Your task to perform on an android device: find snoozed emails in the gmail app Image 0: 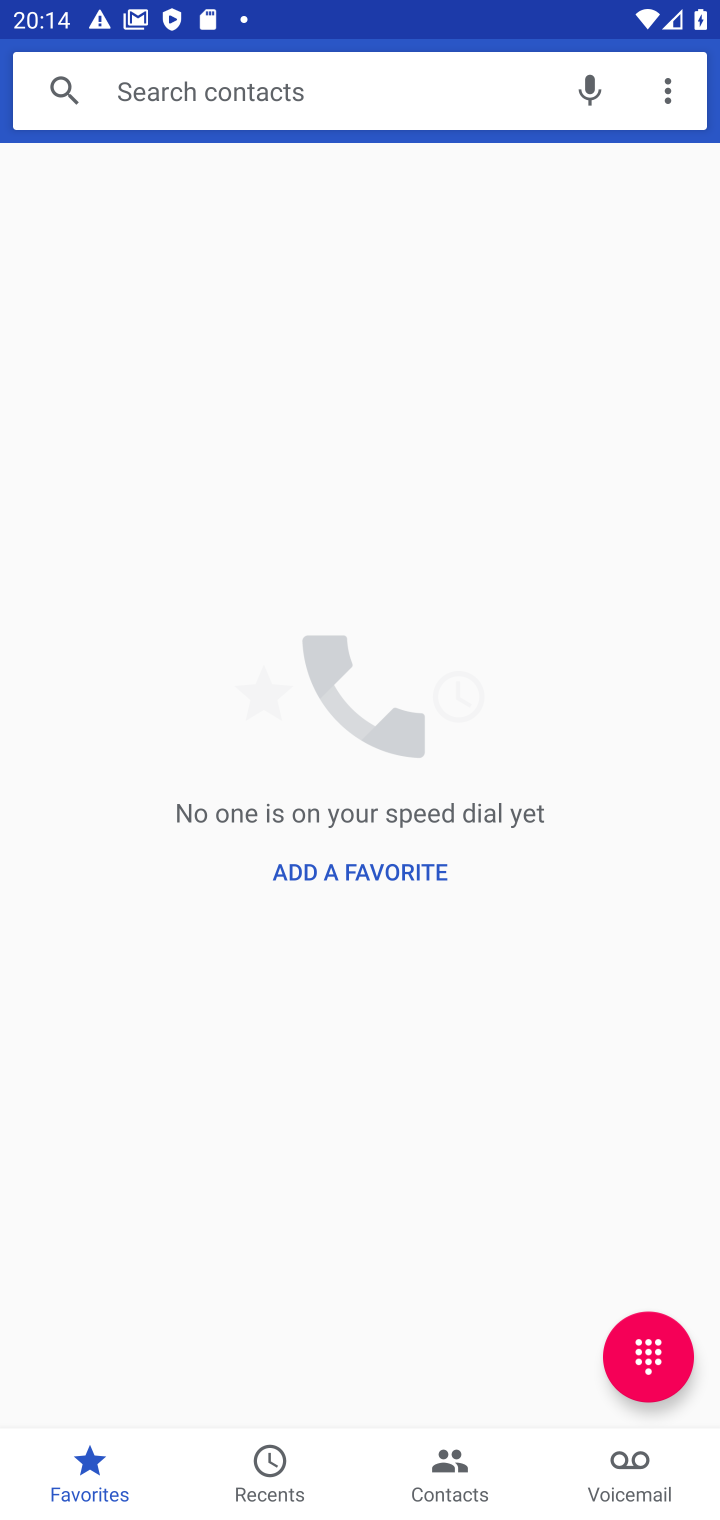
Step 0: press home button
Your task to perform on an android device: find snoozed emails in the gmail app Image 1: 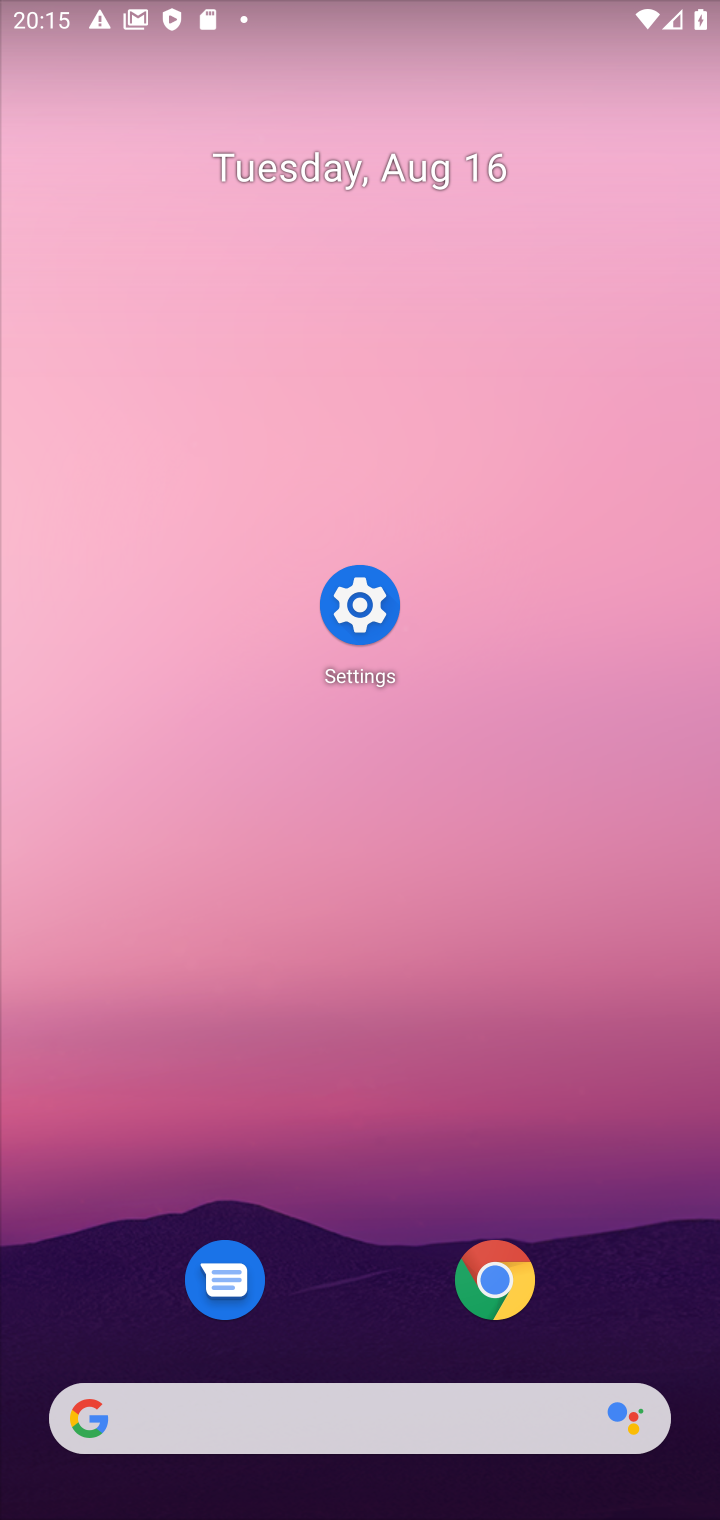
Step 1: drag from (340, 1317) to (390, 129)
Your task to perform on an android device: find snoozed emails in the gmail app Image 2: 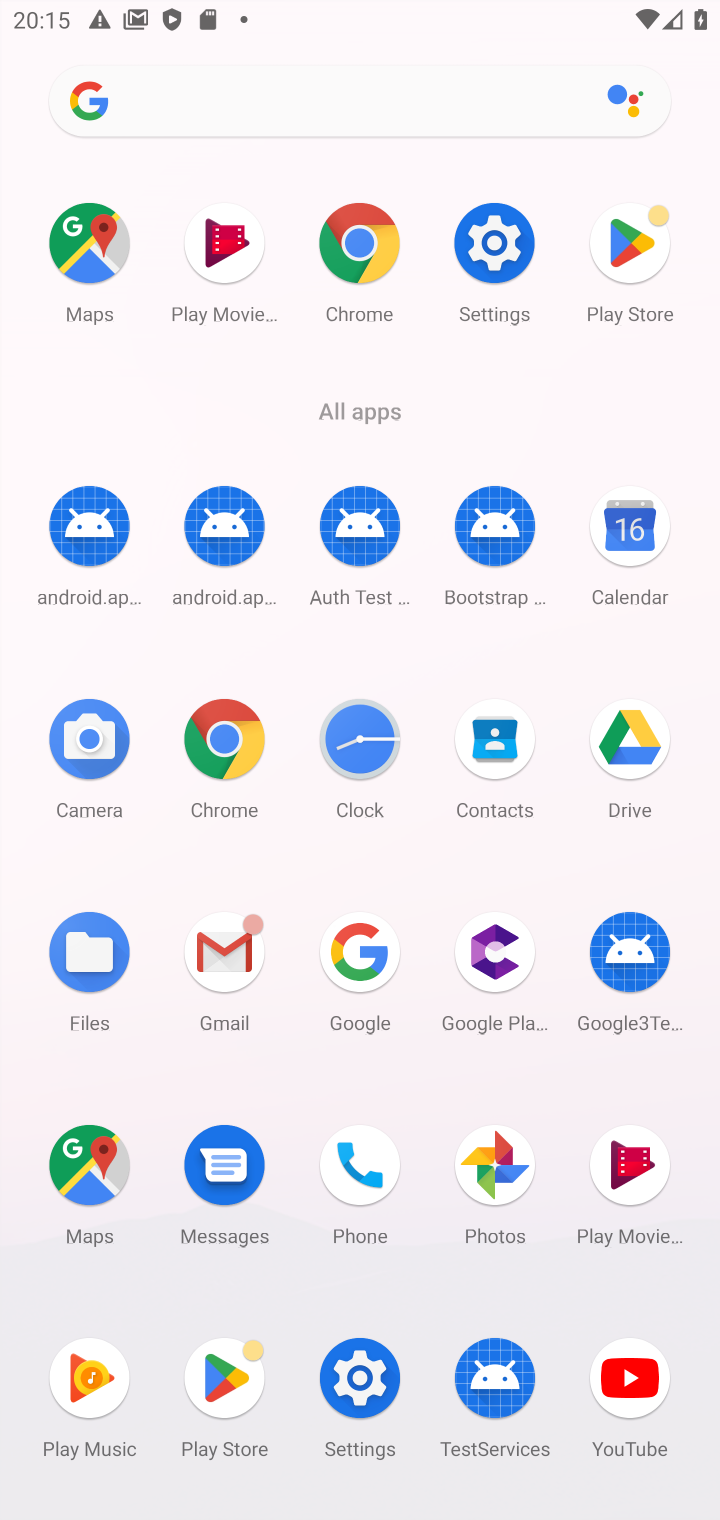
Step 2: click (219, 963)
Your task to perform on an android device: find snoozed emails in the gmail app Image 3: 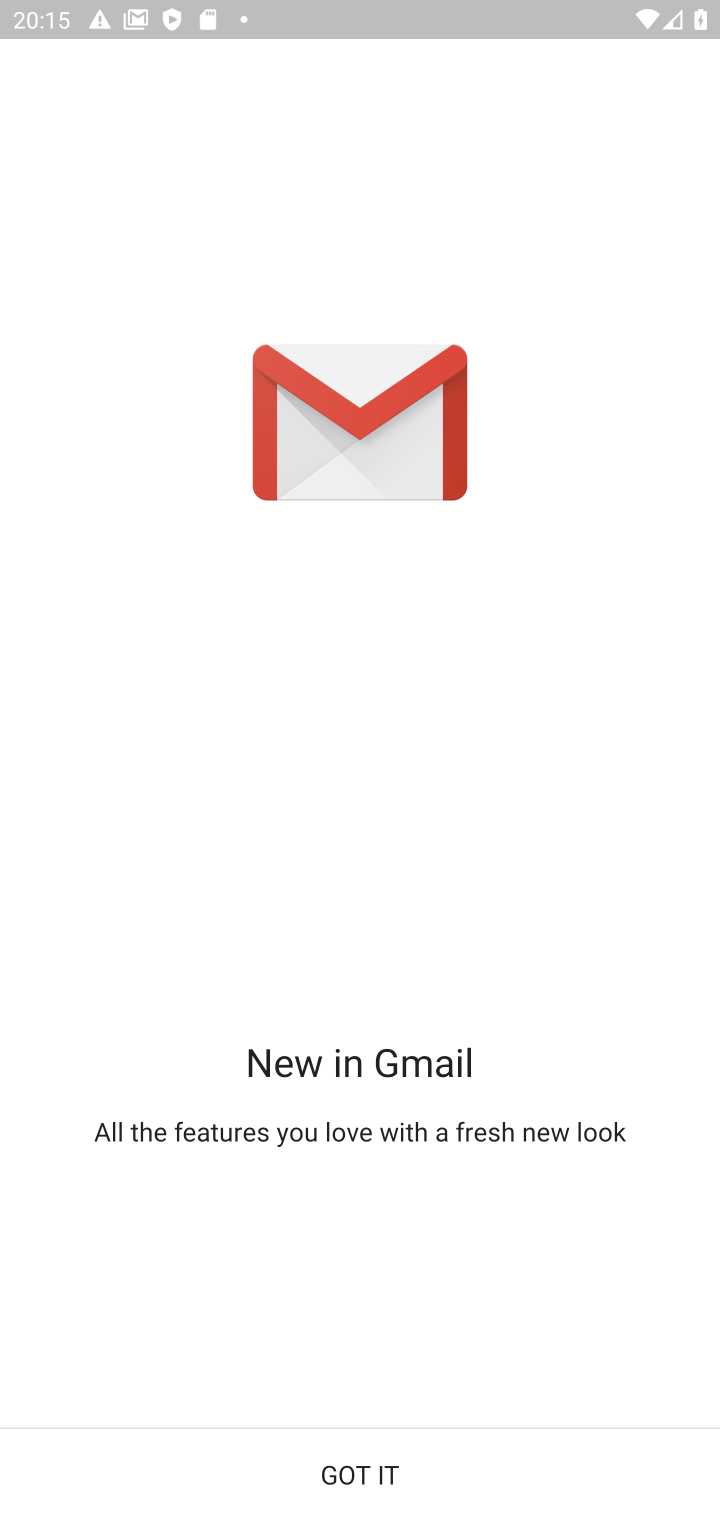
Step 3: click (379, 1478)
Your task to perform on an android device: find snoozed emails in the gmail app Image 4: 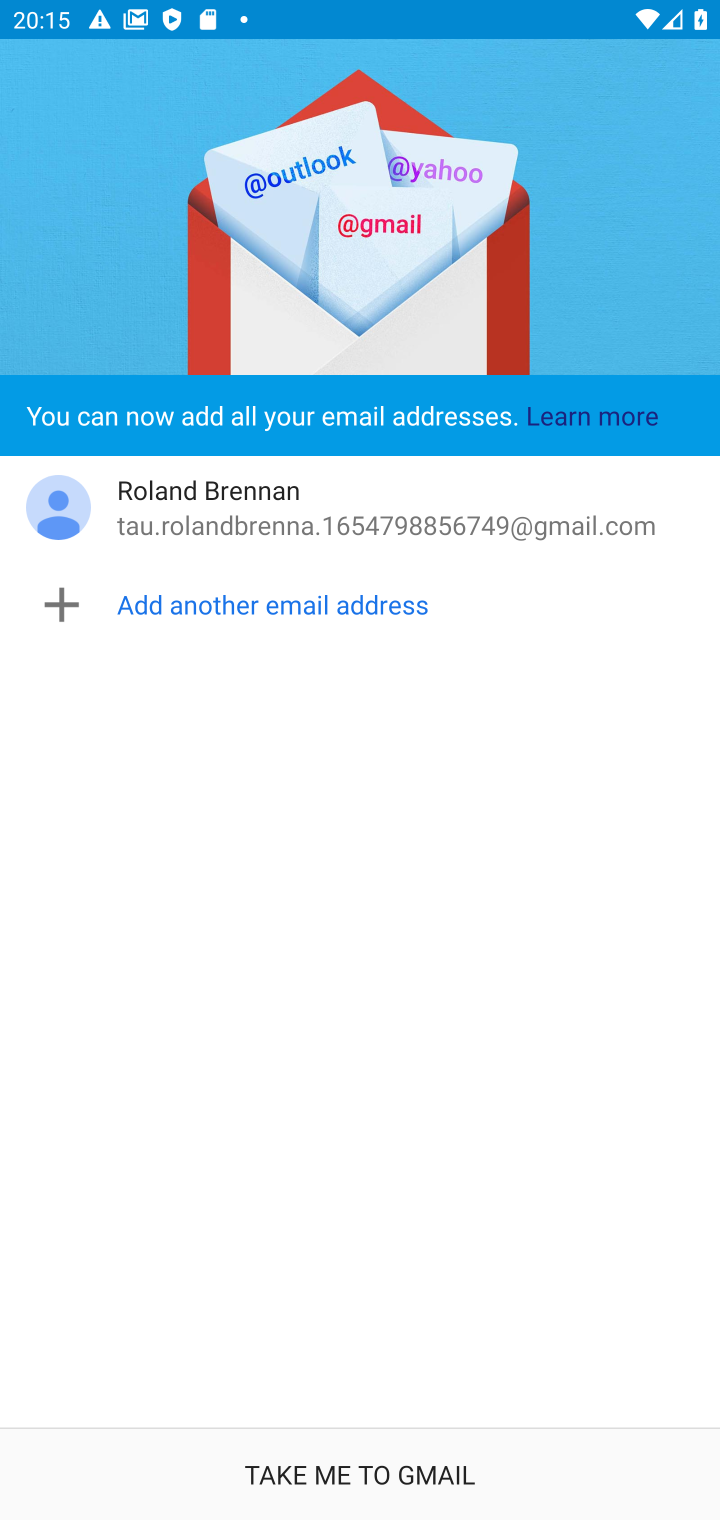
Step 4: click (379, 1476)
Your task to perform on an android device: find snoozed emails in the gmail app Image 5: 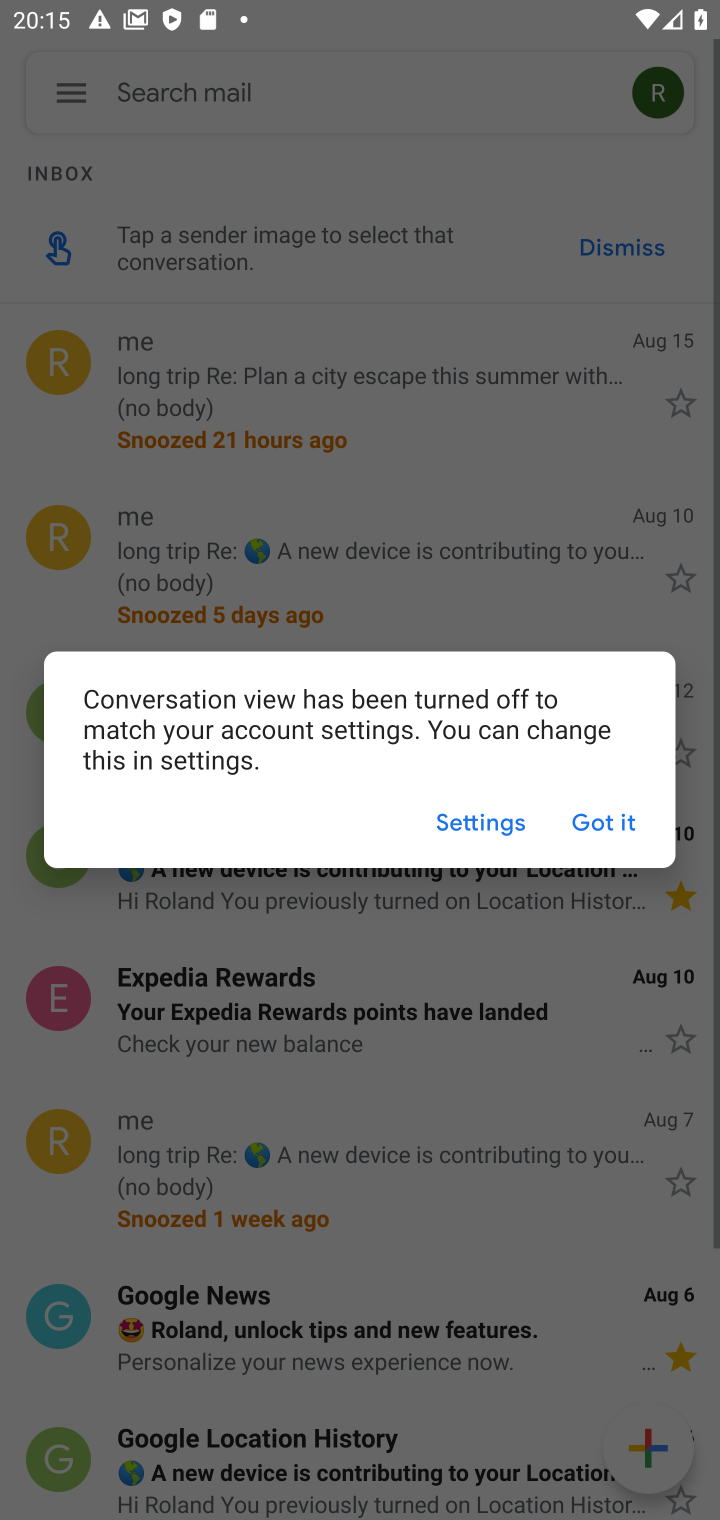
Step 5: click (617, 839)
Your task to perform on an android device: find snoozed emails in the gmail app Image 6: 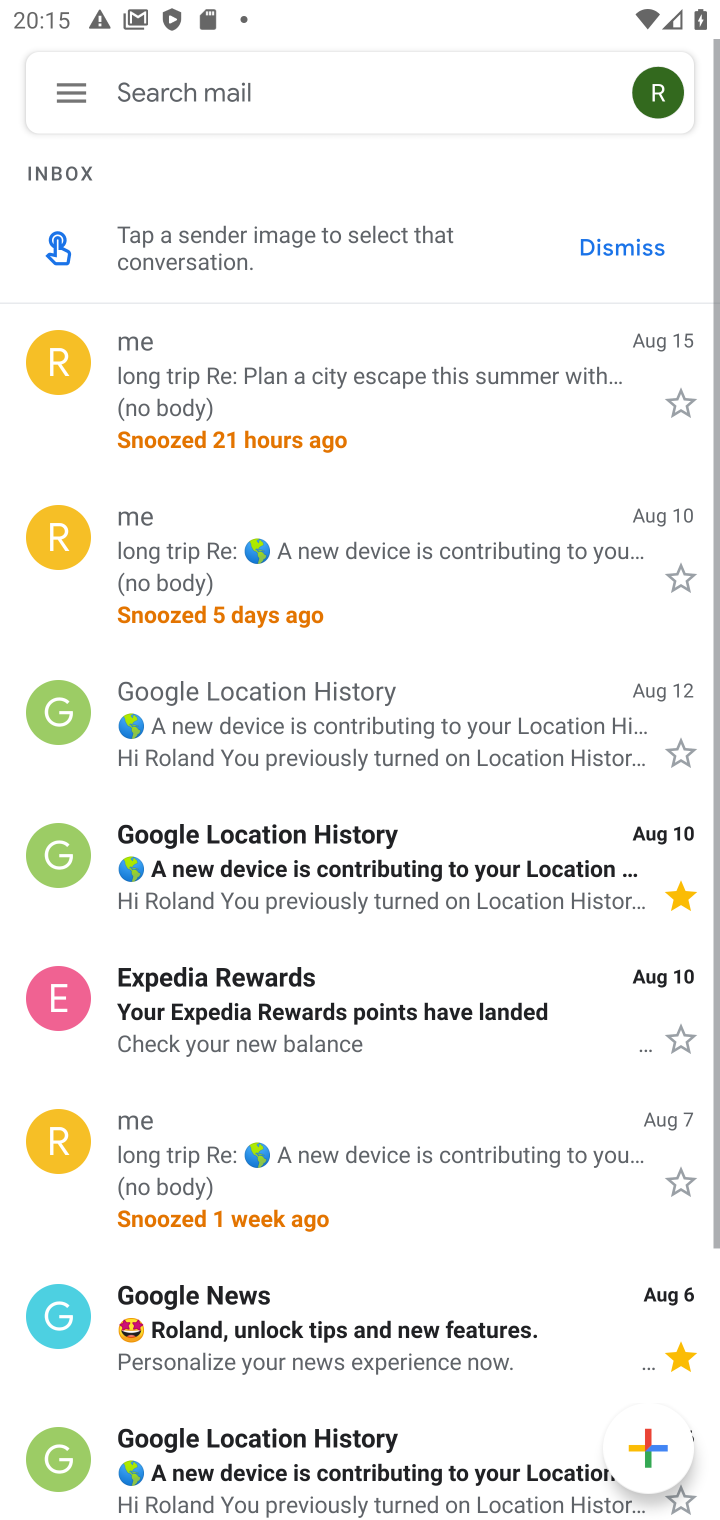
Step 6: click (78, 88)
Your task to perform on an android device: find snoozed emails in the gmail app Image 7: 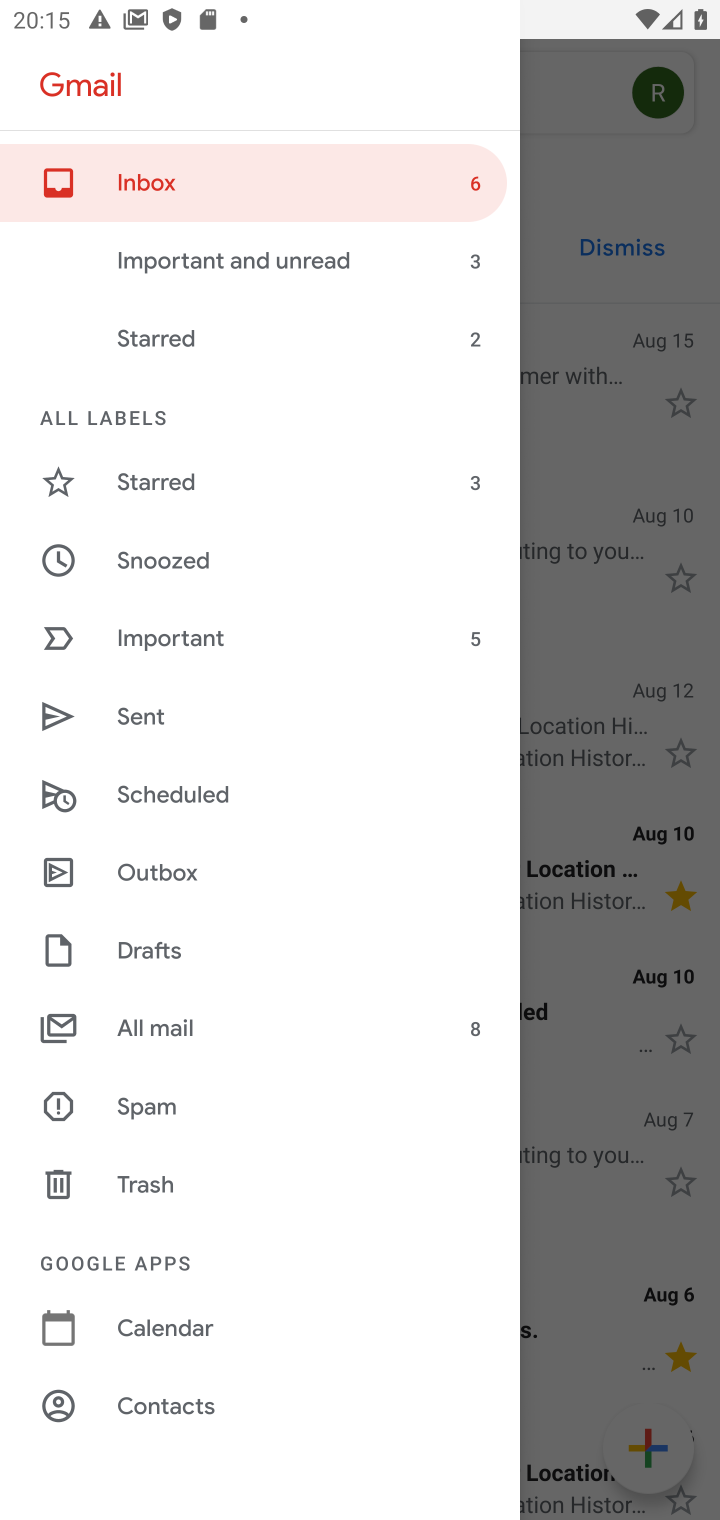
Step 7: click (181, 569)
Your task to perform on an android device: find snoozed emails in the gmail app Image 8: 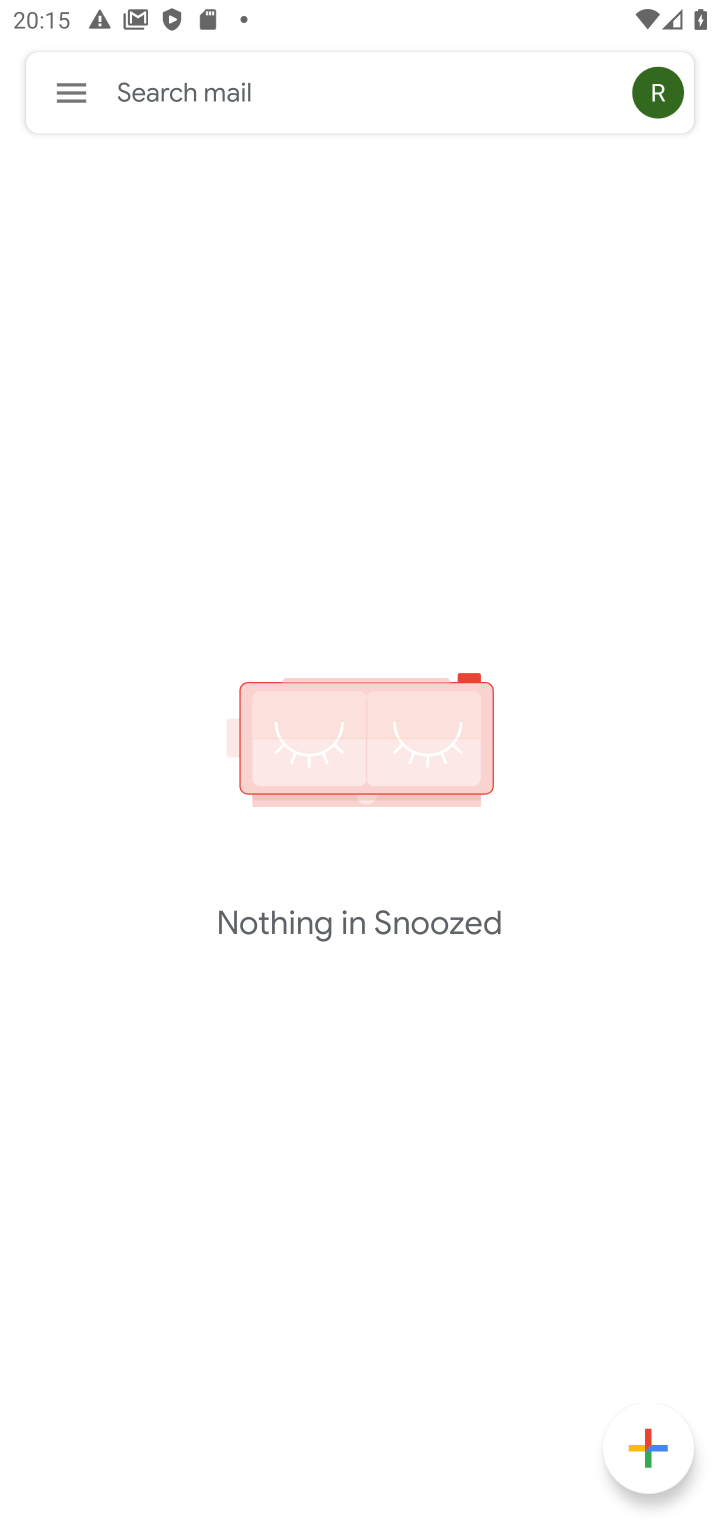
Step 8: task complete